Your task to perform on an android device: turn off improve location accuracy Image 0: 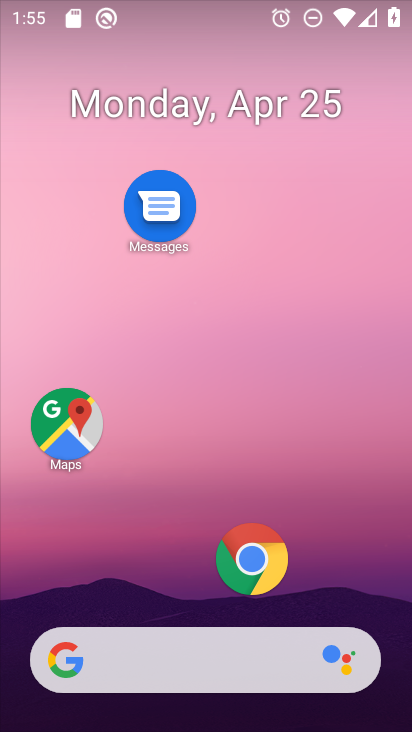
Step 0: drag from (187, 314) to (180, 43)
Your task to perform on an android device: turn off improve location accuracy Image 1: 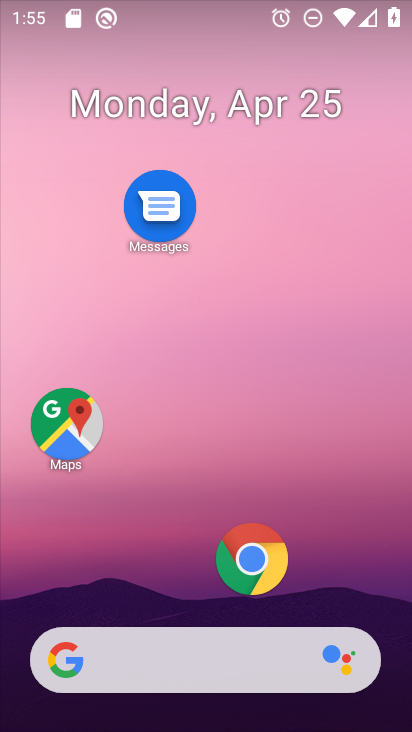
Step 1: drag from (171, 498) to (220, 186)
Your task to perform on an android device: turn off improve location accuracy Image 2: 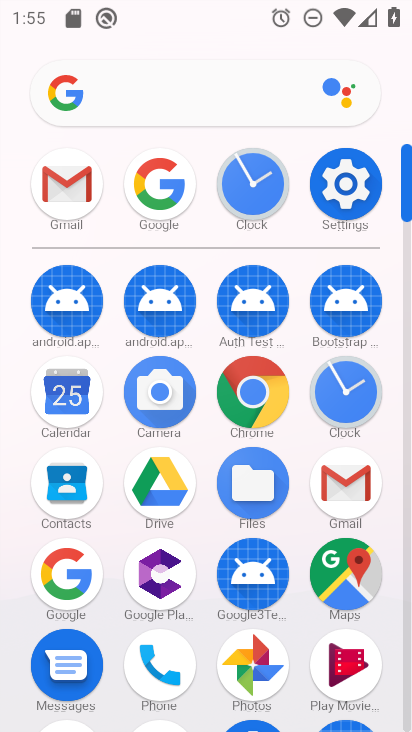
Step 2: click (346, 182)
Your task to perform on an android device: turn off improve location accuracy Image 3: 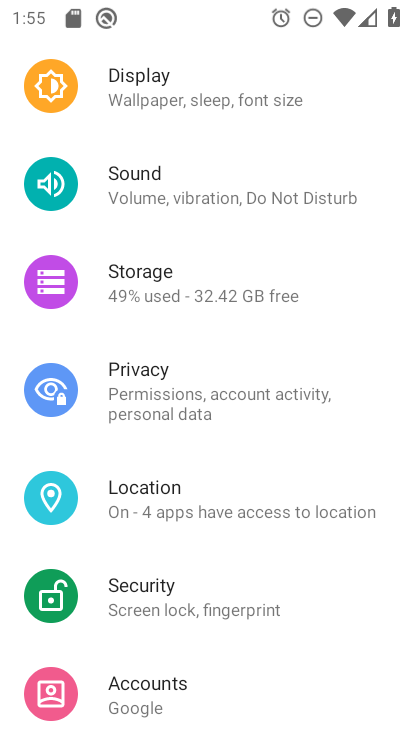
Step 3: click (177, 501)
Your task to perform on an android device: turn off improve location accuracy Image 4: 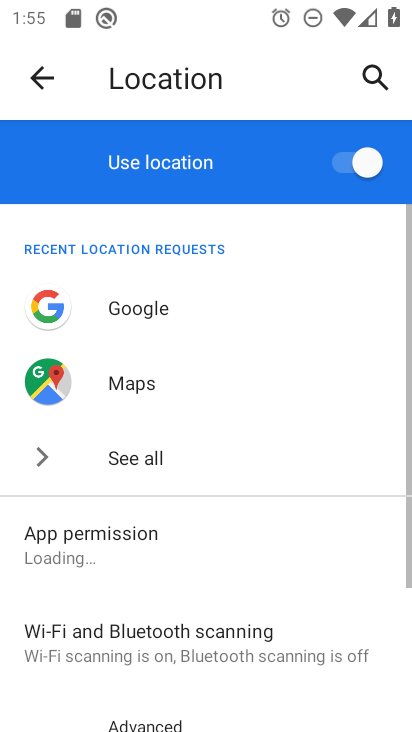
Step 4: drag from (177, 609) to (199, 324)
Your task to perform on an android device: turn off improve location accuracy Image 5: 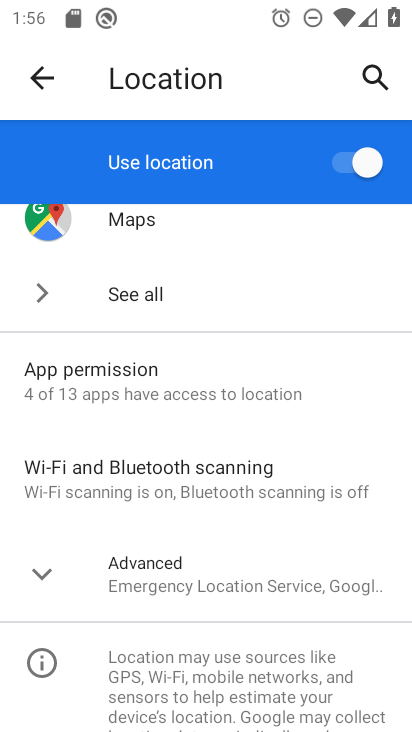
Step 5: click (161, 577)
Your task to perform on an android device: turn off improve location accuracy Image 6: 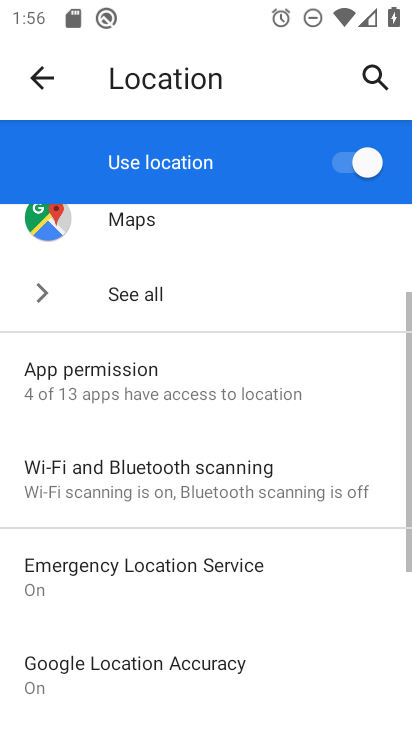
Step 6: drag from (230, 585) to (263, 382)
Your task to perform on an android device: turn off improve location accuracy Image 7: 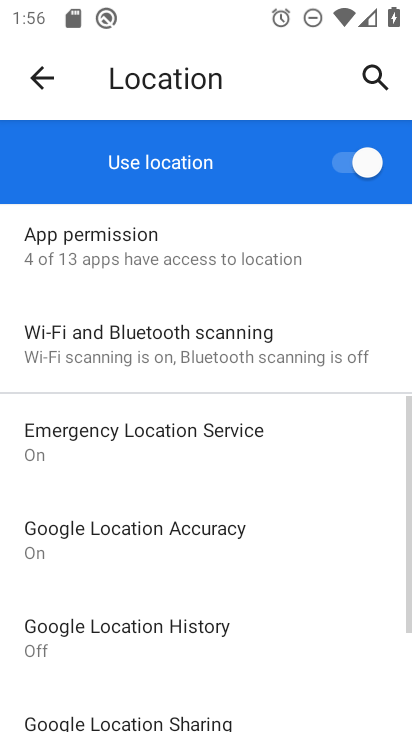
Step 7: click (137, 549)
Your task to perform on an android device: turn off improve location accuracy Image 8: 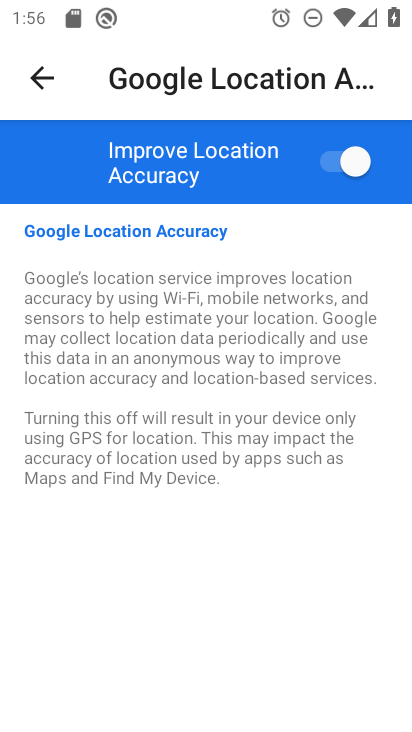
Step 8: click (351, 162)
Your task to perform on an android device: turn off improve location accuracy Image 9: 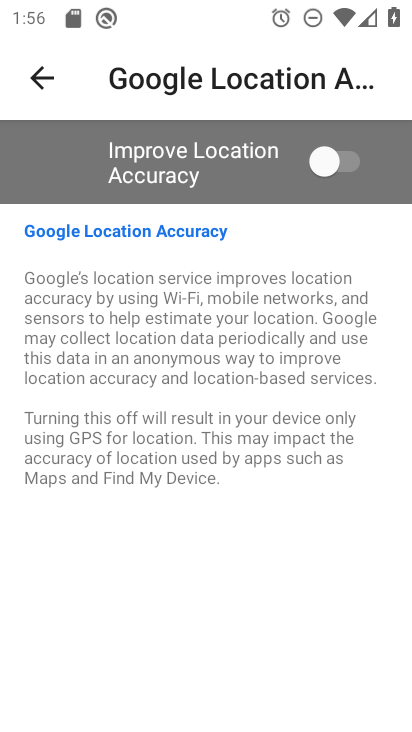
Step 9: task complete